Your task to perform on an android device: check android version Image 0: 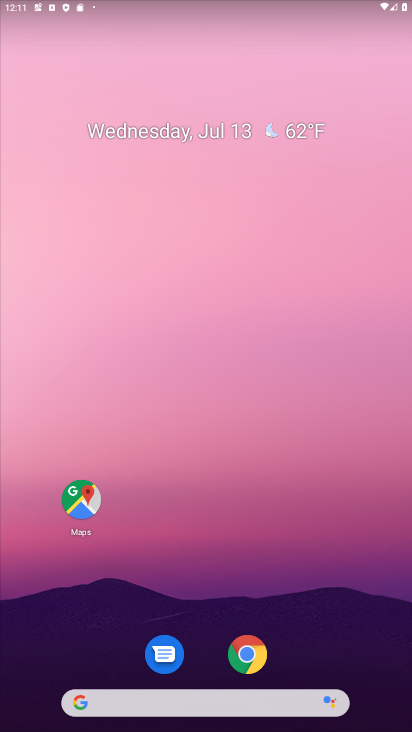
Step 0: drag from (241, 695) to (218, 67)
Your task to perform on an android device: check android version Image 1: 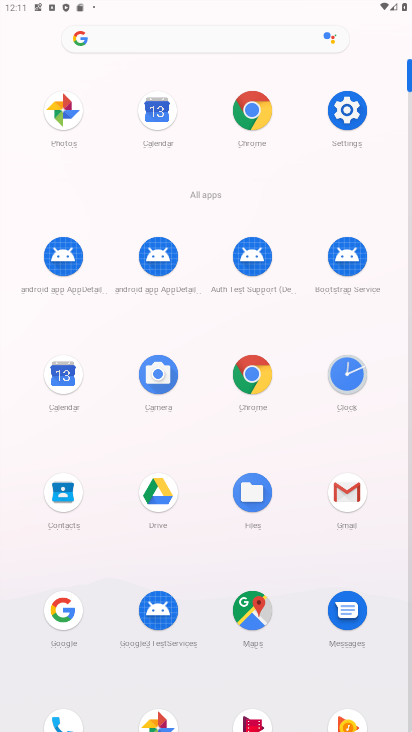
Step 1: click (64, 617)
Your task to perform on an android device: check android version Image 2: 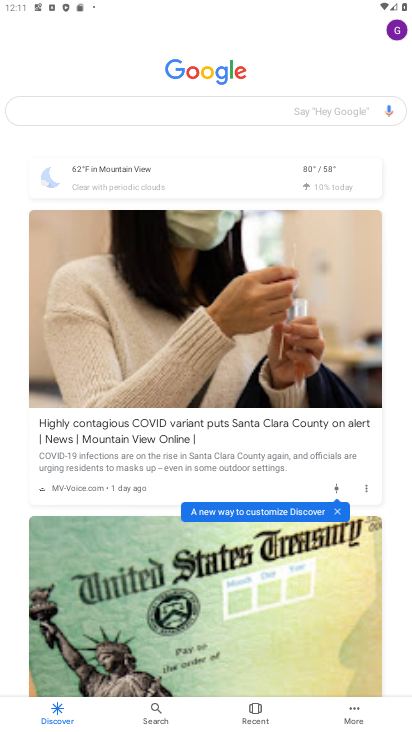
Step 2: click (403, 26)
Your task to perform on an android device: check android version Image 3: 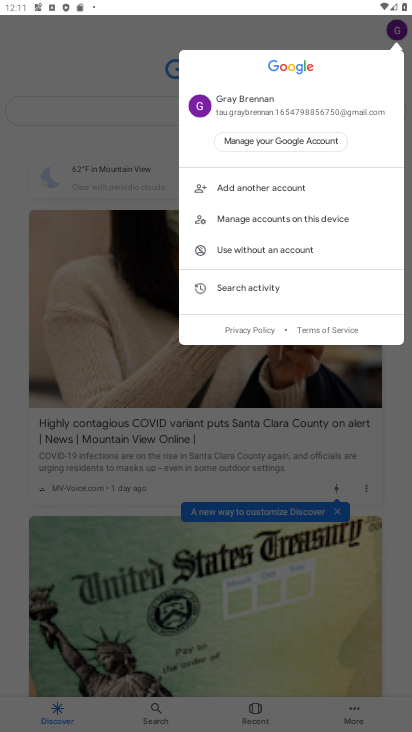
Step 3: click (99, 138)
Your task to perform on an android device: check android version Image 4: 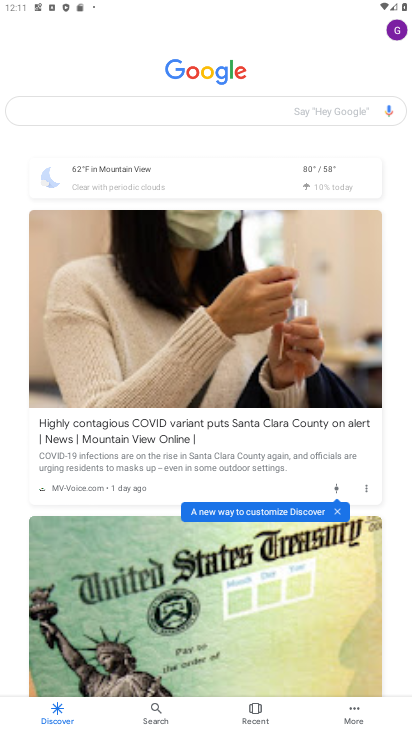
Step 4: click (392, 25)
Your task to perform on an android device: check android version Image 5: 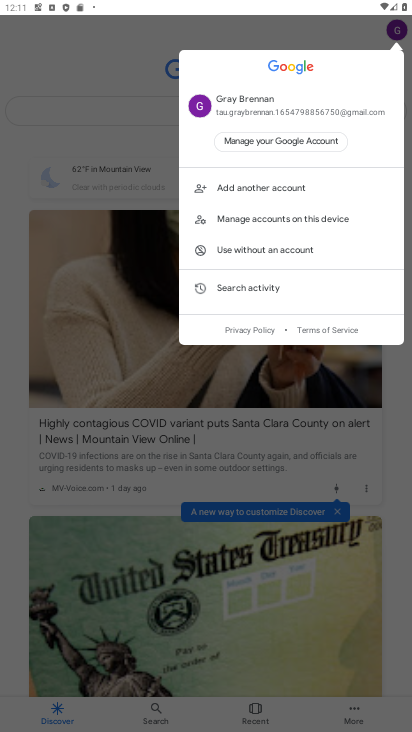
Step 5: click (122, 152)
Your task to perform on an android device: check android version Image 6: 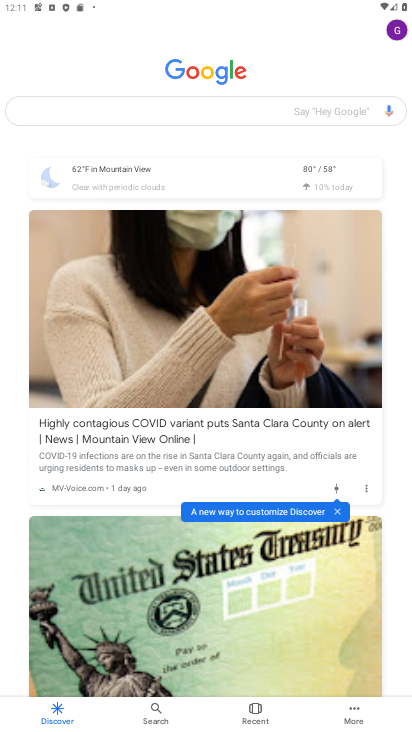
Step 6: click (343, 712)
Your task to perform on an android device: check android version Image 7: 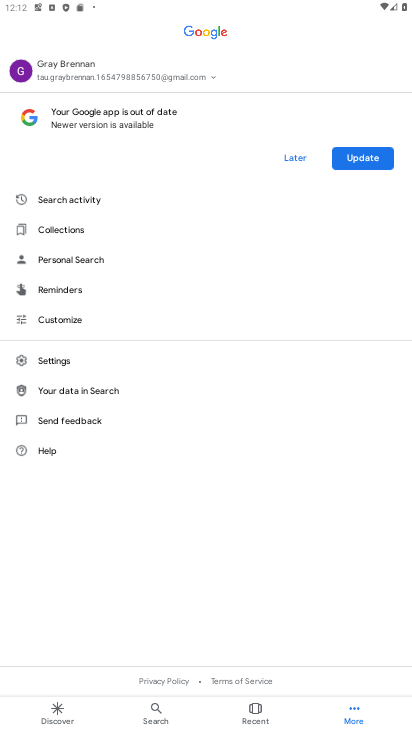
Step 7: click (80, 446)
Your task to perform on an android device: check android version Image 8: 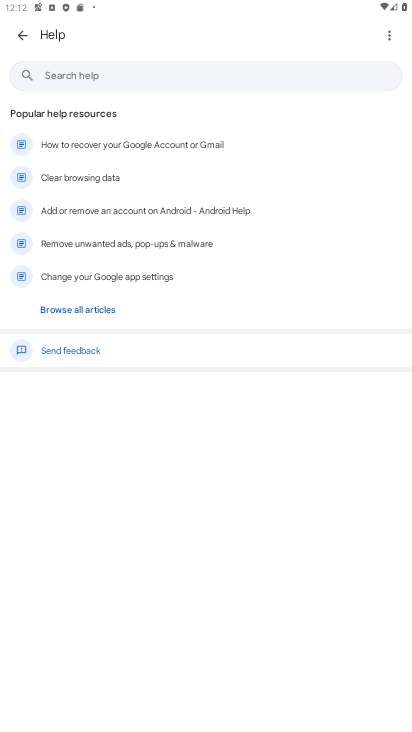
Step 8: click (383, 29)
Your task to perform on an android device: check android version Image 9: 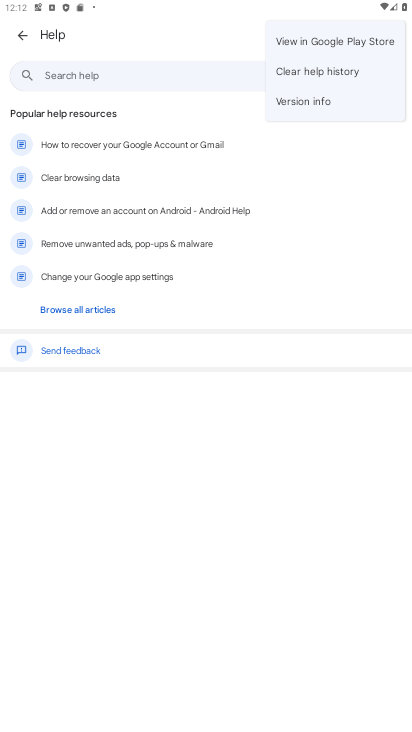
Step 9: click (314, 104)
Your task to perform on an android device: check android version Image 10: 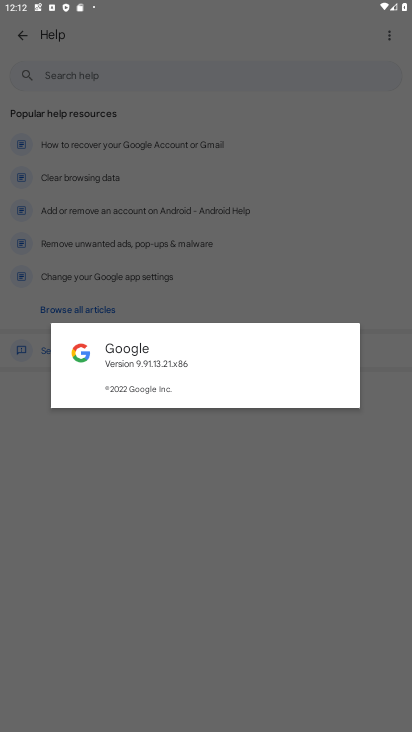
Step 10: task complete